Your task to perform on an android device: turn on data saver in the chrome app Image 0: 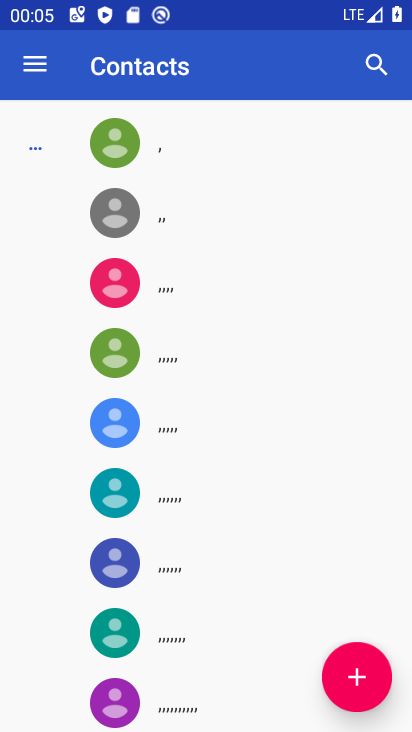
Step 0: press home button
Your task to perform on an android device: turn on data saver in the chrome app Image 1: 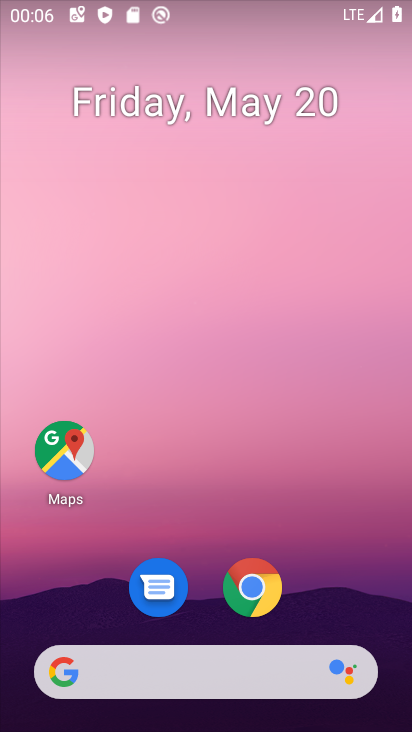
Step 1: drag from (211, 583) to (216, 204)
Your task to perform on an android device: turn on data saver in the chrome app Image 2: 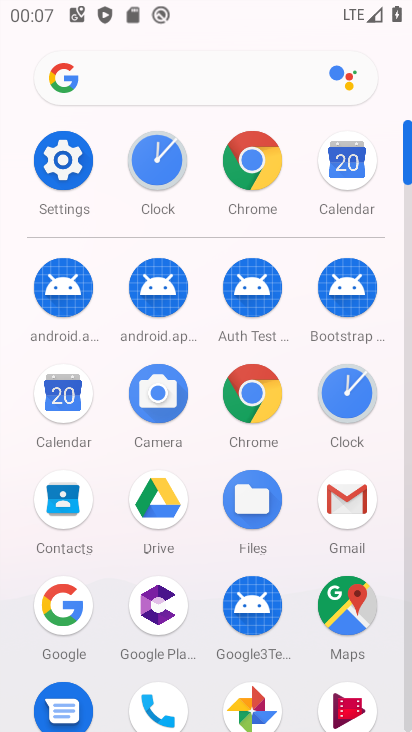
Step 2: click (262, 141)
Your task to perform on an android device: turn on data saver in the chrome app Image 3: 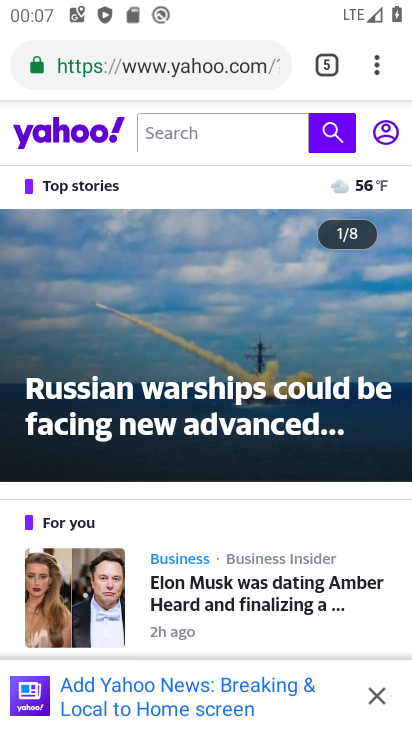
Step 3: click (376, 69)
Your task to perform on an android device: turn on data saver in the chrome app Image 4: 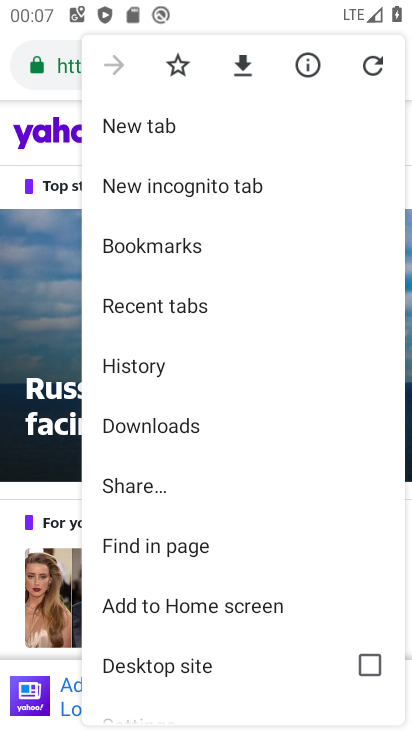
Step 4: drag from (130, 508) to (162, 348)
Your task to perform on an android device: turn on data saver in the chrome app Image 5: 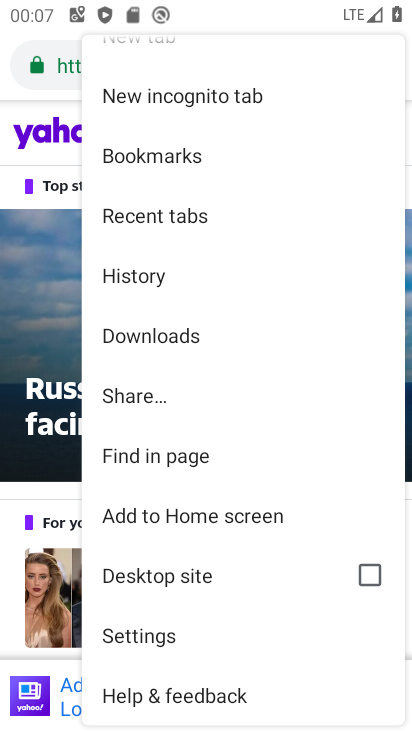
Step 5: click (165, 627)
Your task to perform on an android device: turn on data saver in the chrome app Image 6: 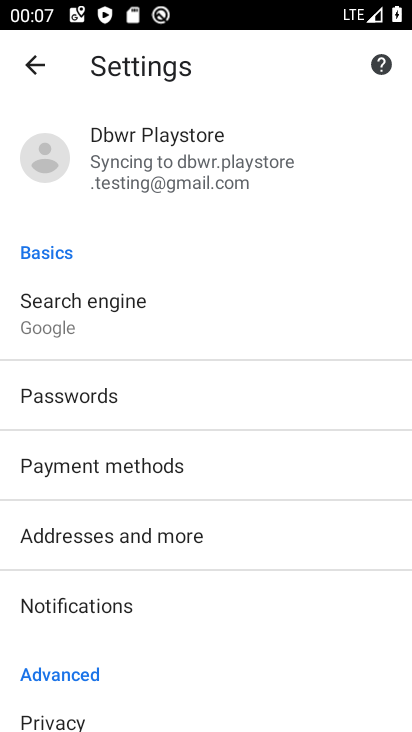
Step 6: drag from (167, 619) to (206, 375)
Your task to perform on an android device: turn on data saver in the chrome app Image 7: 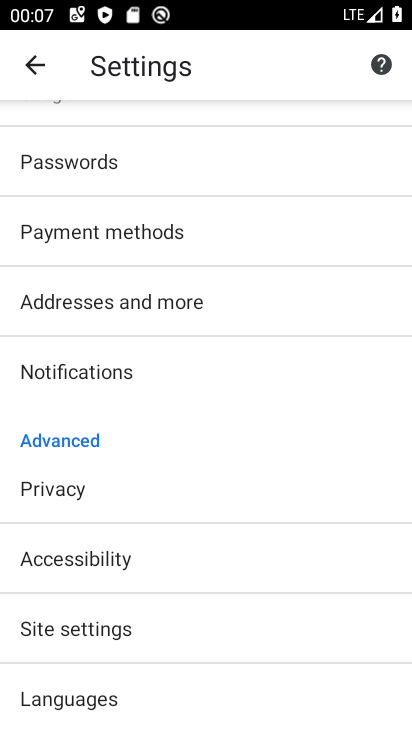
Step 7: drag from (122, 617) to (137, 472)
Your task to perform on an android device: turn on data saver in the chrome app Image 8: 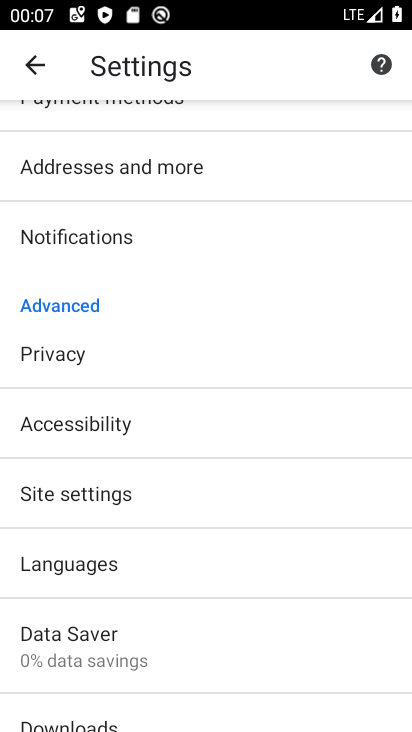
Step 8: click (110, 650)
Your task to perform on an android device: turn on data saver in the chrome app Image 9: 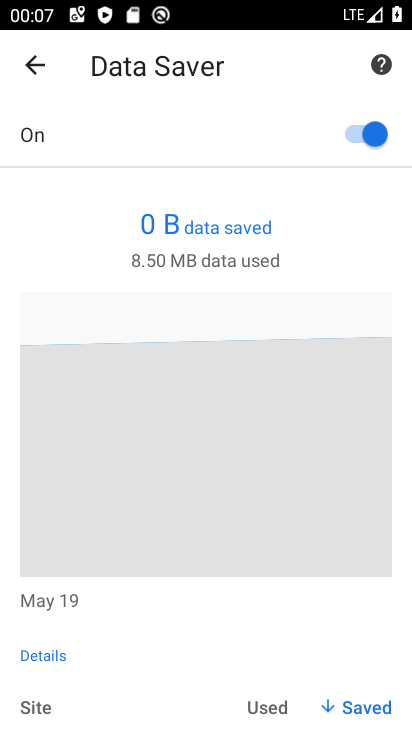
Step 9: task complete